Your task to perform on an android device: open wifi settings Image 0: 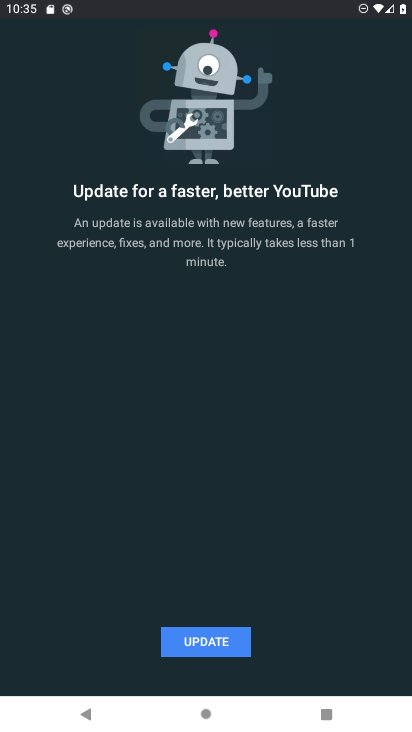
Step 0: press home button
Your task to perform on an android device: open wifi settings Image 1: 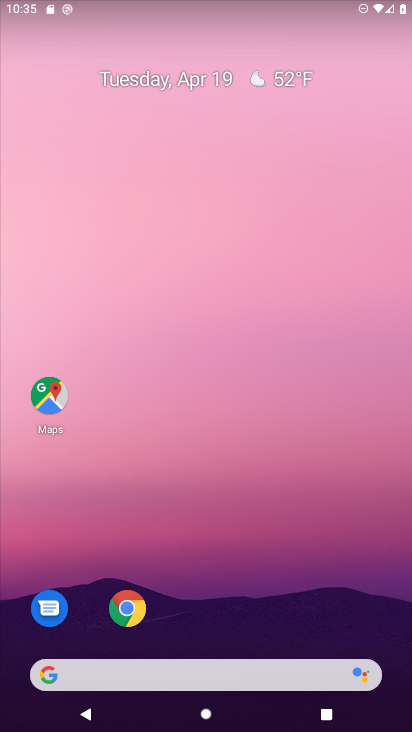
Step 1: drag from (218, 585) to (296, 133)
Your task to perform on an android device: open wifi settings Image 2: 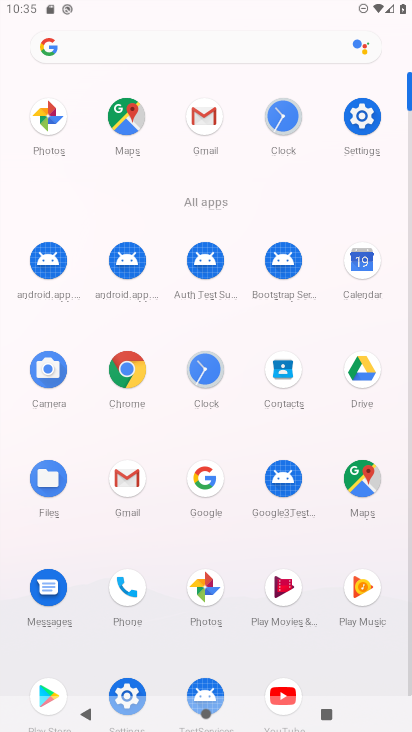
Step 2: click (371, 123)
Your task to perform on an android device: open wifi settings Image 3: 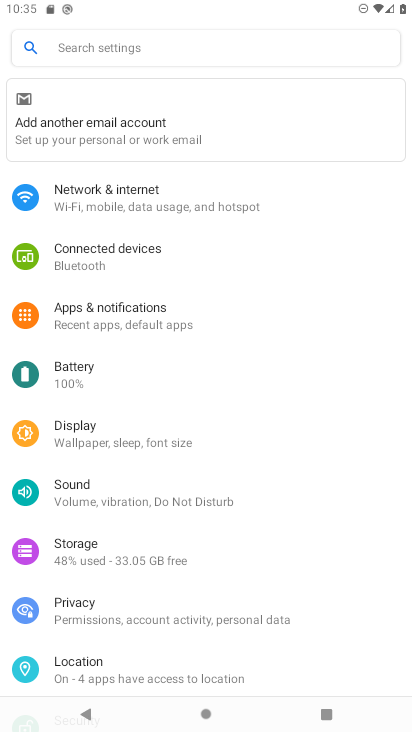
Step 3: click (167, 194)
Your task to perform on an android device: open wifi settings Image 4: 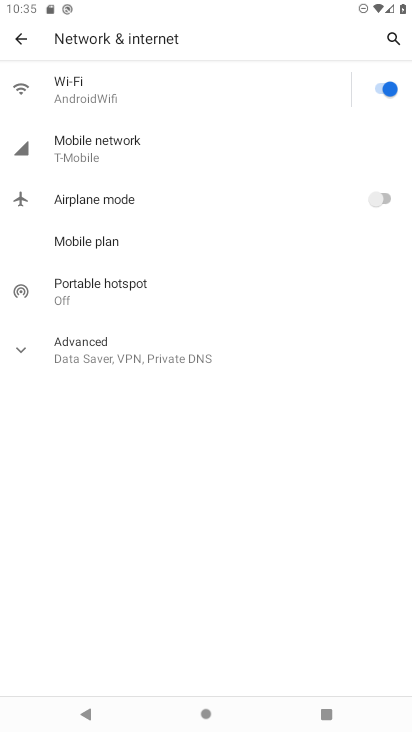
Step 4: click (87, 94)
Your task to perform on an android device: open wifi settings Image 5: 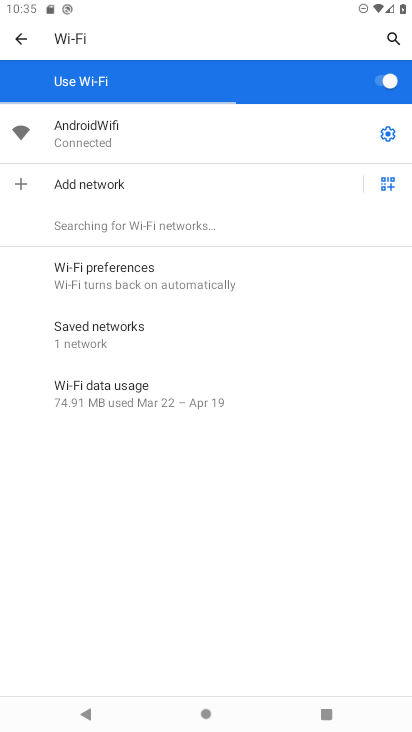
Step 5: task complete